Your task to perform on an android device: Go to sound settings Image 0: 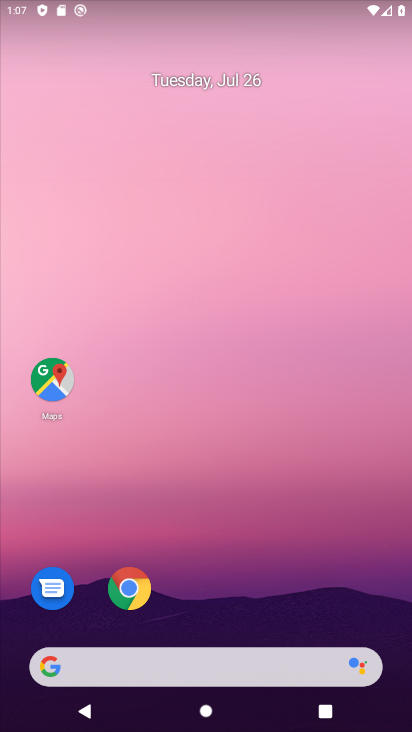
Step 0: drag from (354, 568) to (292, 171)
Your task to perform on an android device: Go to sound settings Image 1: 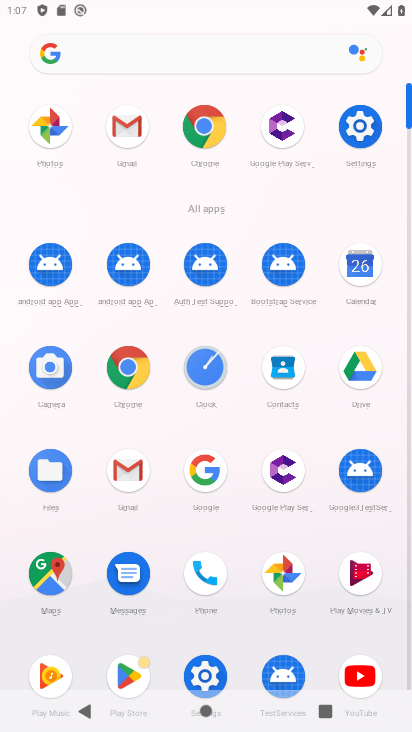
Step 1: click (197, 672)
Your task to perform on an android device: Go to sound settings Image 2: 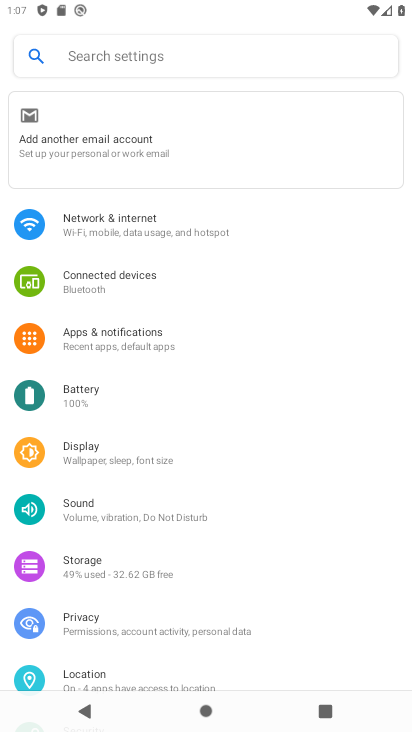
Step 2: click (121, 505)
Your task to perform on an android device: Go to sound settings Image 3: 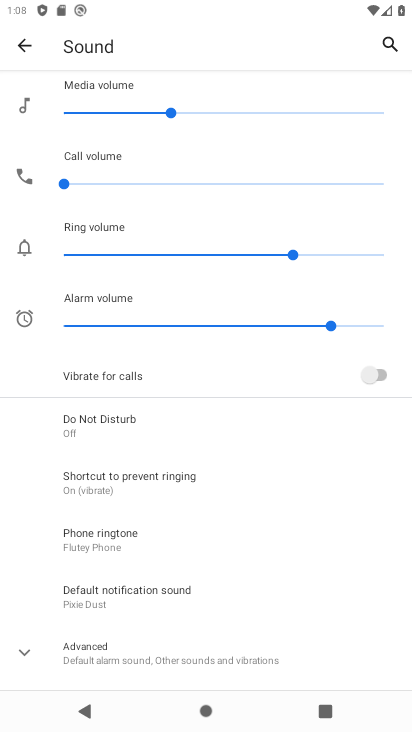
Step 3: task complete